Your task to perform on an android device: turn off notifications in google photos Image 0: 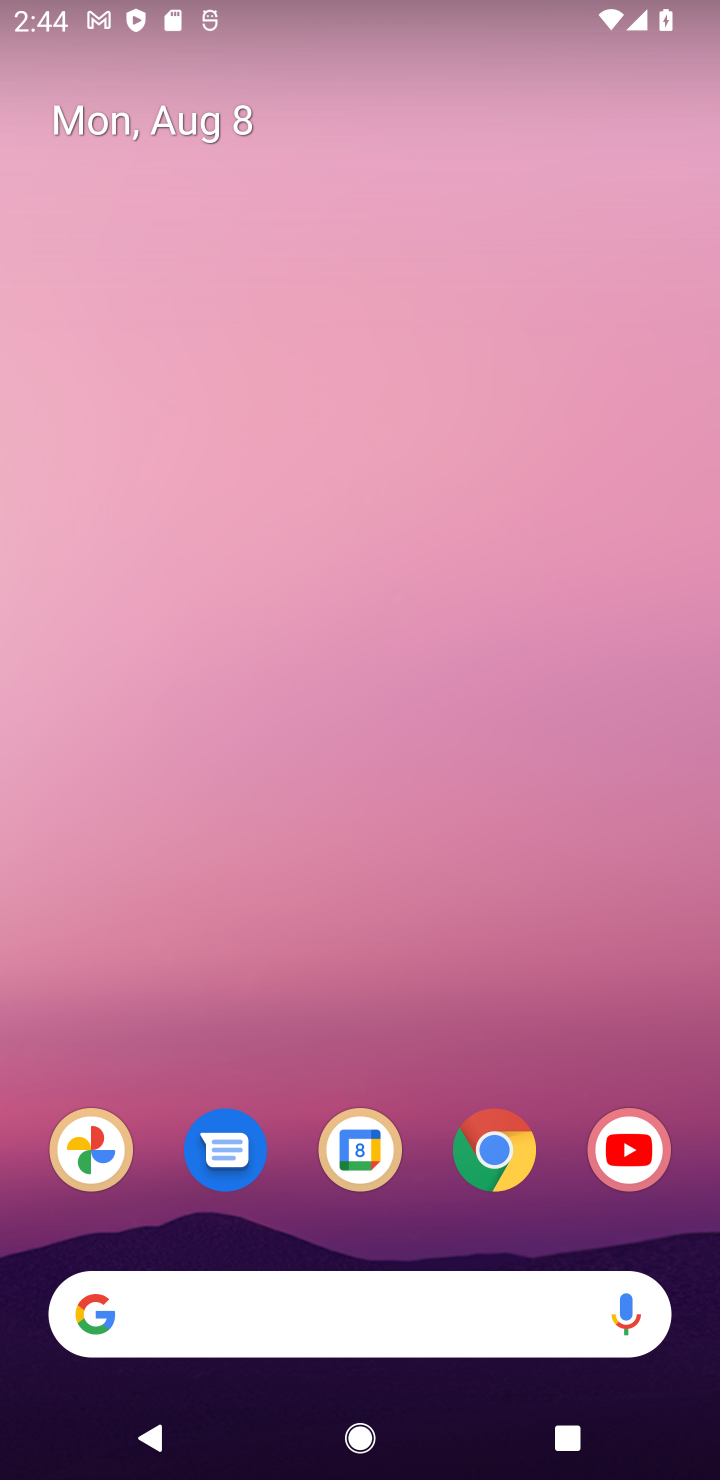
Step 0: click (83, 1137)
Your task to perform on an android device: turn off notifications in google photos Image 1: 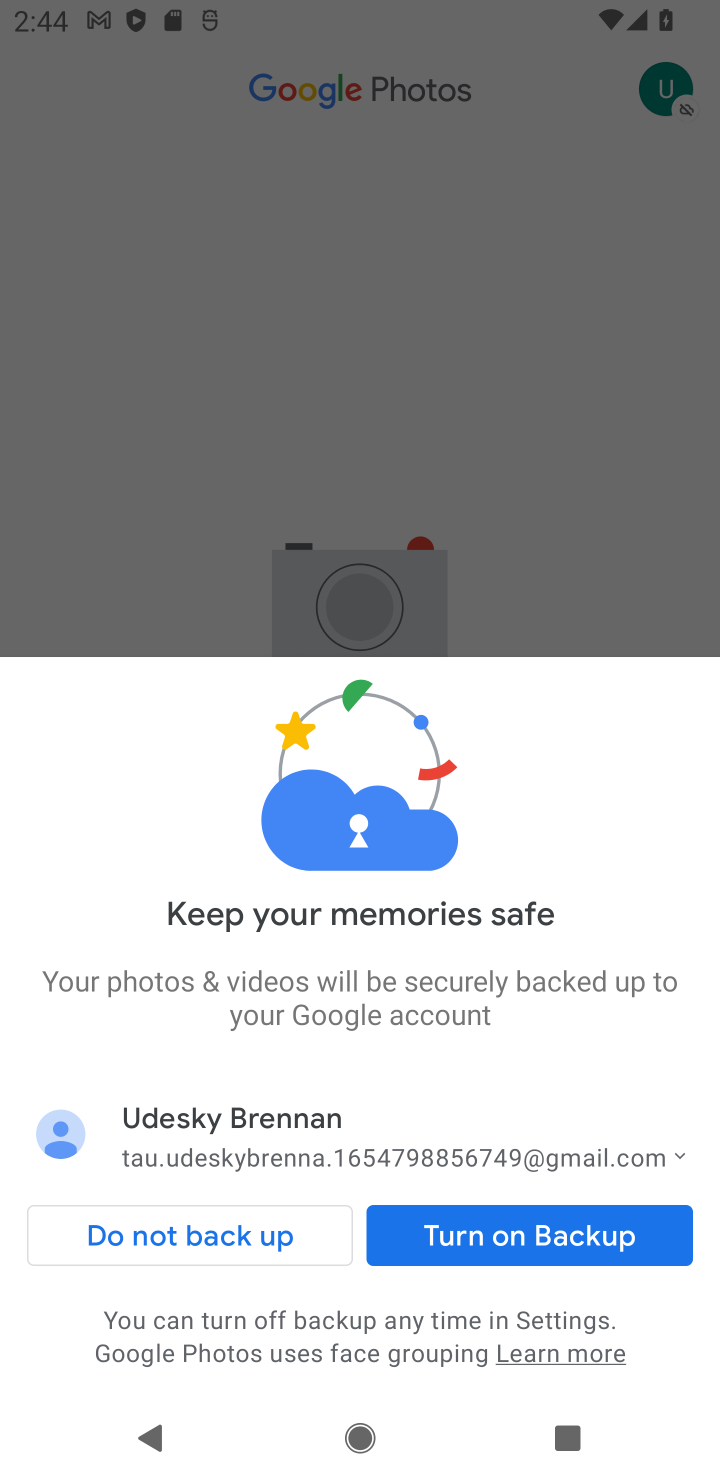
Step 1: task complete